Your task to perform on an android device: check out phone information Image 0: 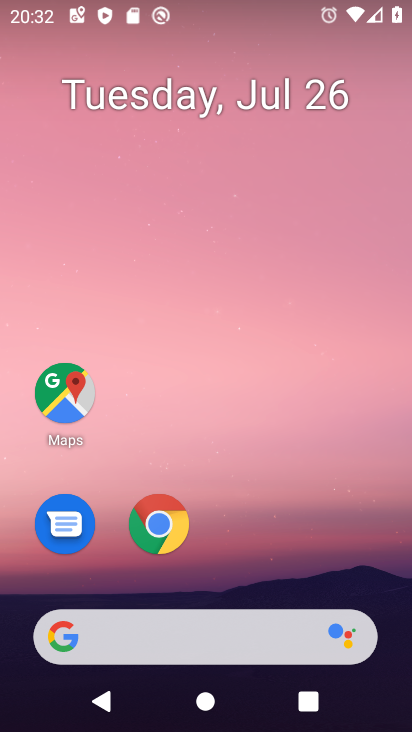
Step 0: drag from (265, 529) to (210, 30)
Your task to perform on an android device: check out phone information Image 1: 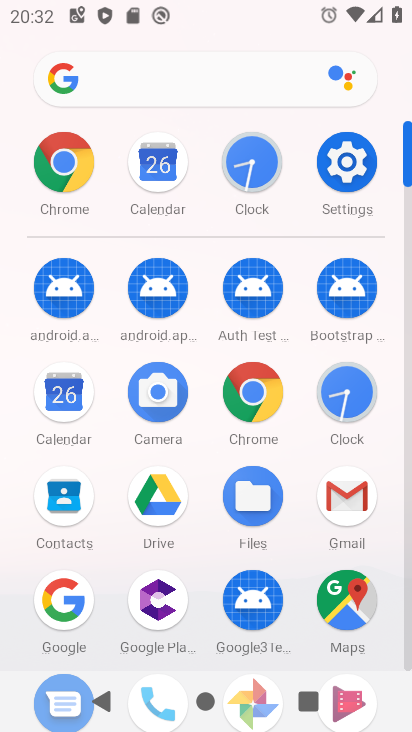
Step 1: drag from (208, 429) to (176, 93)
Your task to perform on an android device: check out phone information Image 2: 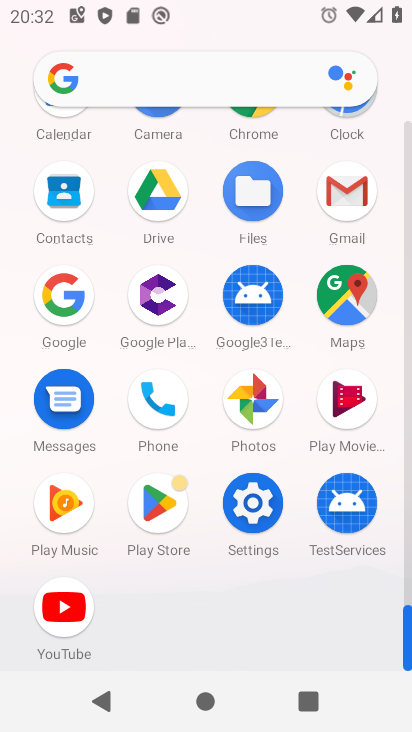
Step 2: click (165, 397)
Your task to perform on an android device: check out phone information Image 3: 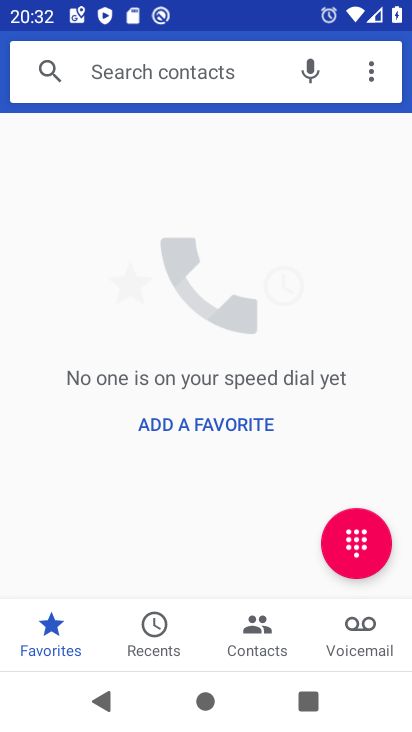
Step 3: click (368, 77)
Your task to perform on an android device: check out phone information Image 4: 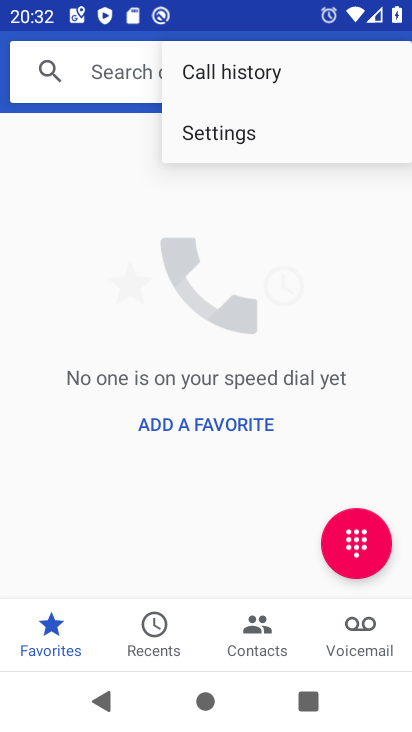
Step 4: click (271, 131)
Your task to perform on an android device: check out phone information Image 5: 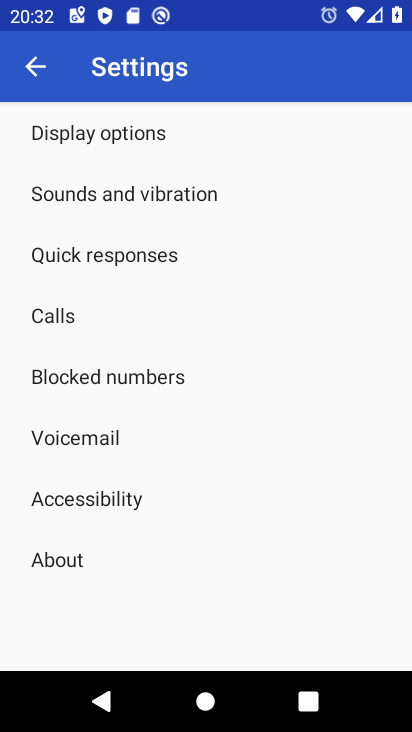
Step 5: click (52, 555)
Your task to perform on an android device: check out phone information Image 6: 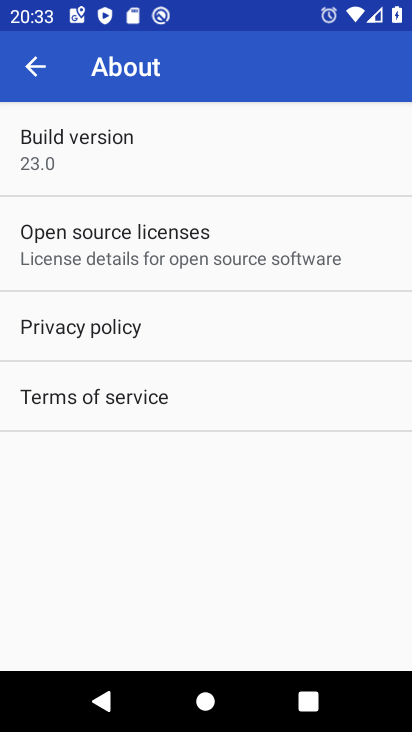
Step 6: click (113, 325)
Your task to perform on an android device: check out phone information Image 7: 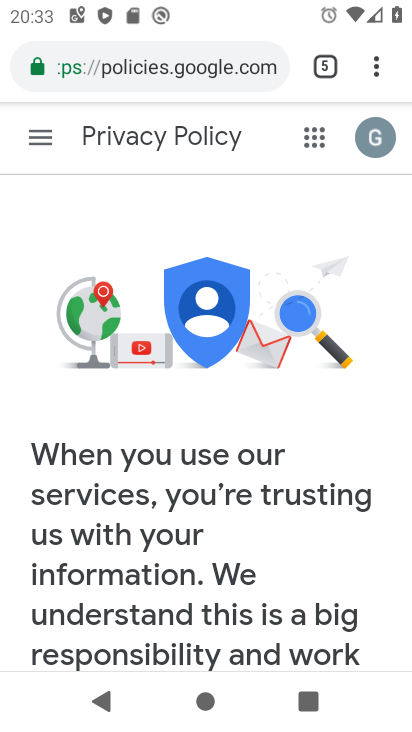
Step 7: task complete